Your task to perform on an android device: What's the weather today? Image 0: 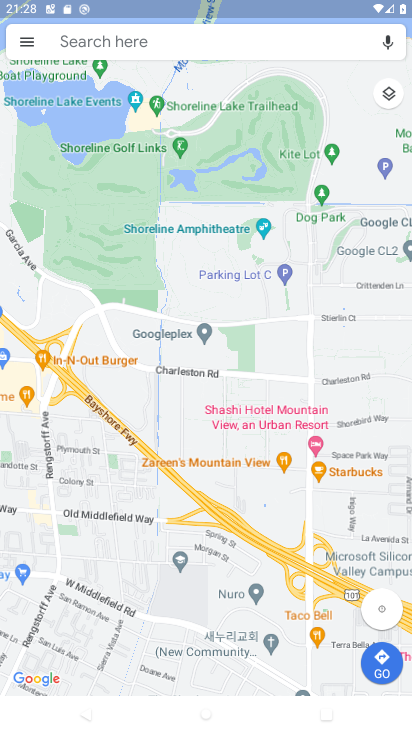
Step 0: press home button
Your task to perform on an android device: What's the weather today? Image 1: 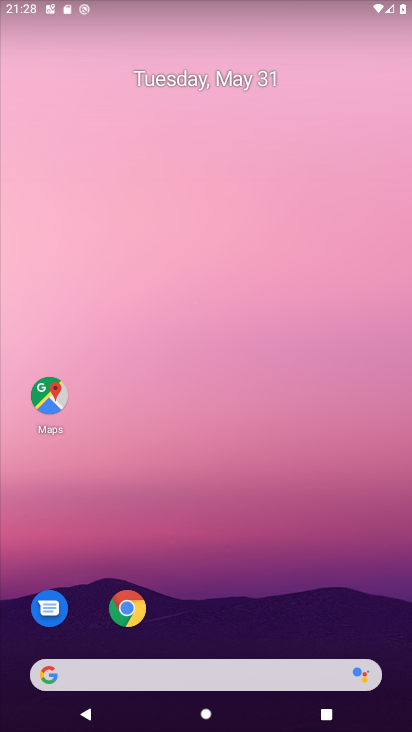
Step 1: drag from (237, 594) to (261, 259)
Your task to perform on an android device: What's the weather today? Image 2: 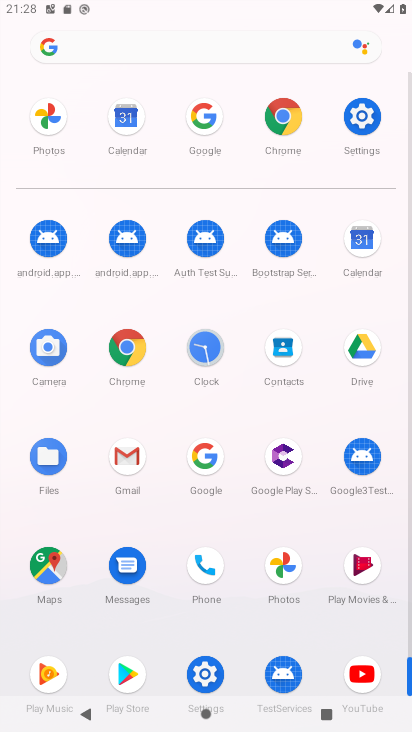
Step 2: click (202, 456)
Your task to perform on an android device: What's the weather today? Image 3: 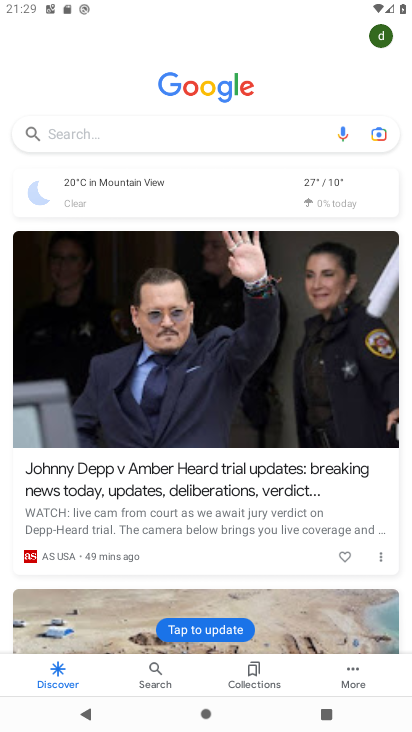
Step 3: click (185, 181)
Your task to perform on an android device: What's the weather today? Image 4: 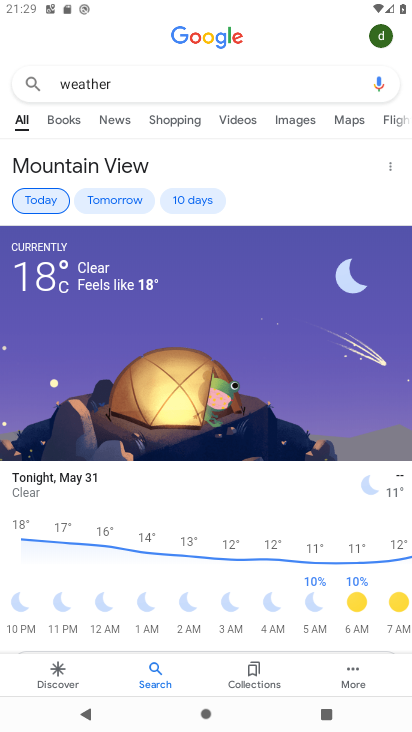
Step 4: task complete